Your task to perform on an android device: choose inbox layout in the gmail app Image 0: 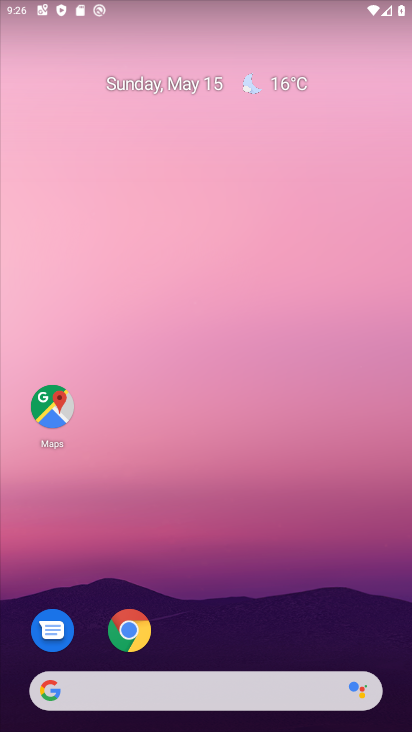
Step 0: drag from (241, 631) to (273, 160)
Your task to perform on an android device: choose inbox layout in the gmail app Image 1: 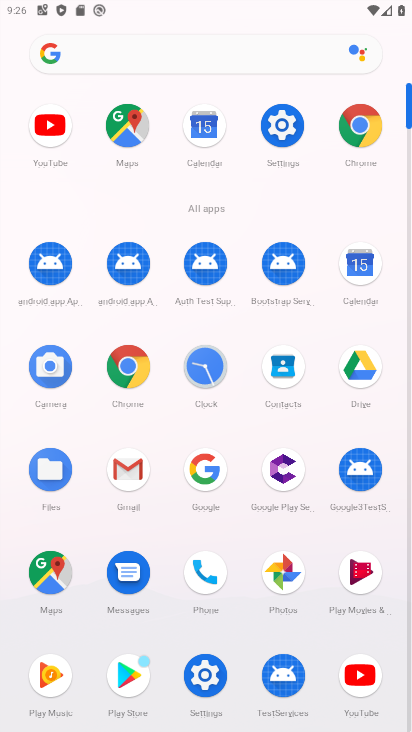
Step 1: click (139, 474)
Your task to perform on an android device: choose inbox layout in the gmail app Image 2: 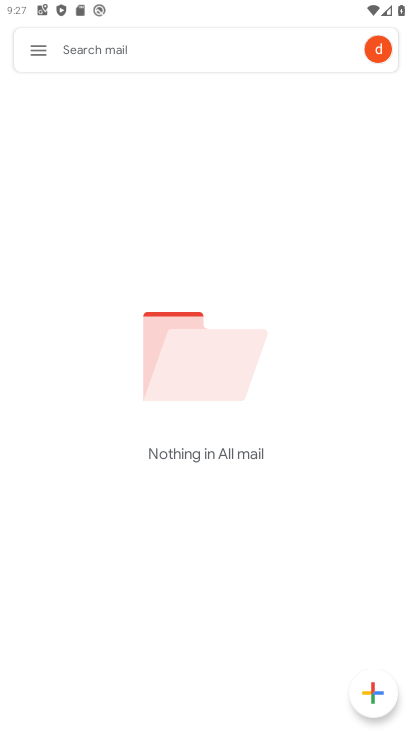
Step 2: click (32, 55)
Your task to perform on an android device: choose inbox layout in the gmail app Image 3: 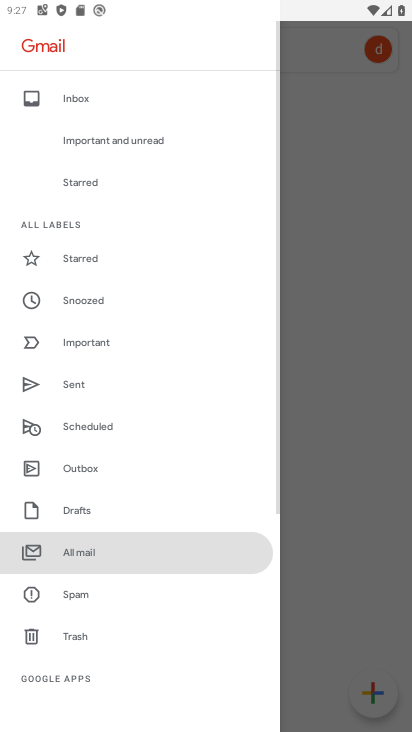
Step 3: drag from (117, 587) to (173, 324)
Your task to perform on an android device: choose inbox layout in the gmail app Image 4: 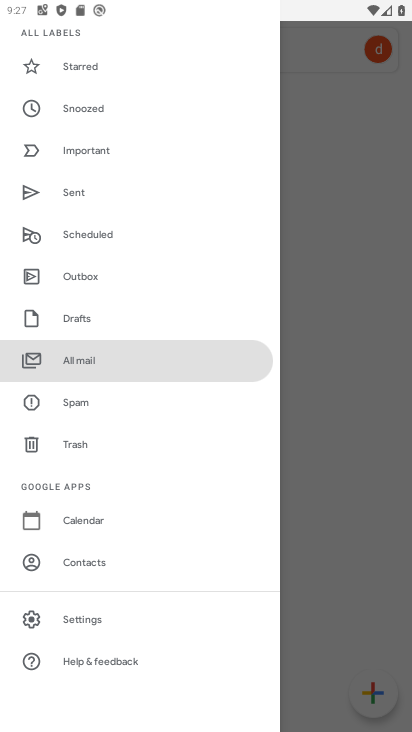
Step 4: click (95, 617)
Your task to perform on an android device: choose inbox layout in the gmail app Image 5: 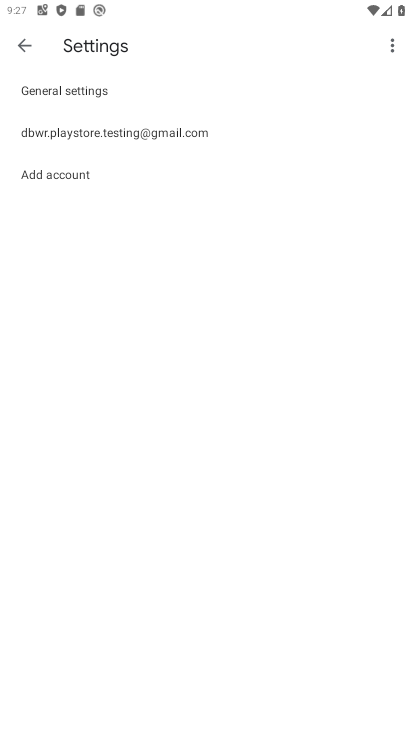
Step 5: click (142, 128)
Your task to perform on an android device: choose inbox layout in the gmail app Image 6: 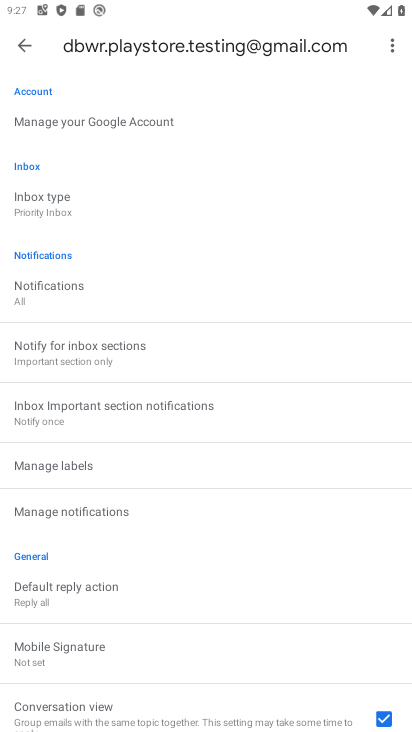
Step 6: click (85, 205)
Your task to perform on an android device: choose inbox layout in the gmail app Image 7: 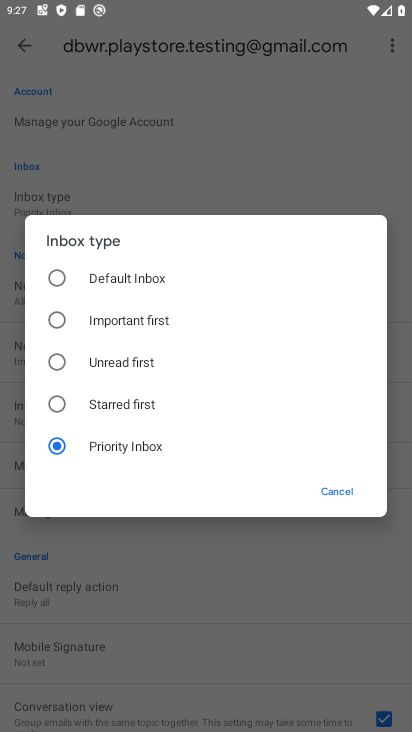
Step 7: click (97, 285)
Your task to perform on an android device: choose inbox layout in the gmail app Image 8: 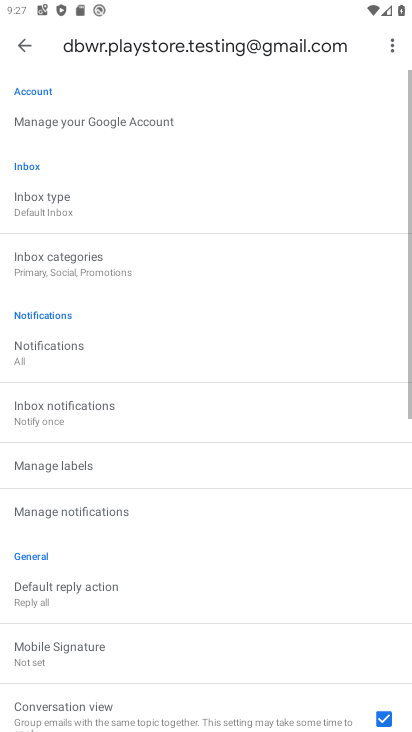
Step 8: task complete